Your task to perform on an android device: Go to location settings Image 0: 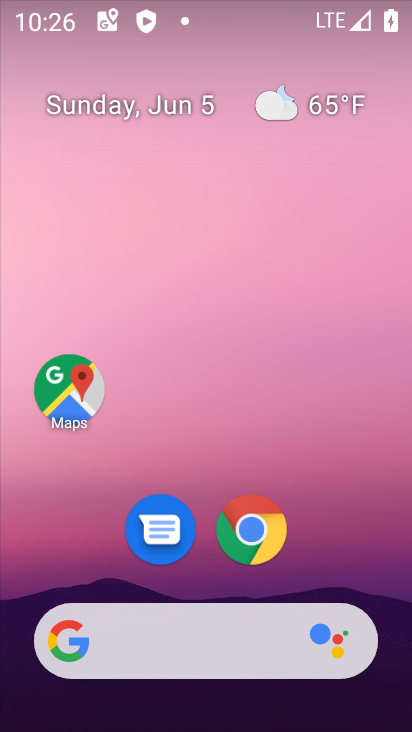
Step 0: drag from (143, 703) to (170, 18)
Your task to perform on an android device: Go to location settings Image 1: 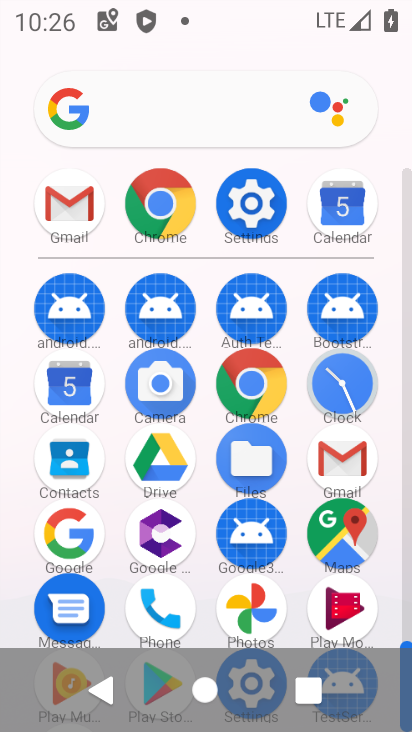
Step 1: click (254, 178)
Your task to perform on an android device: Go to location settings Image 2: 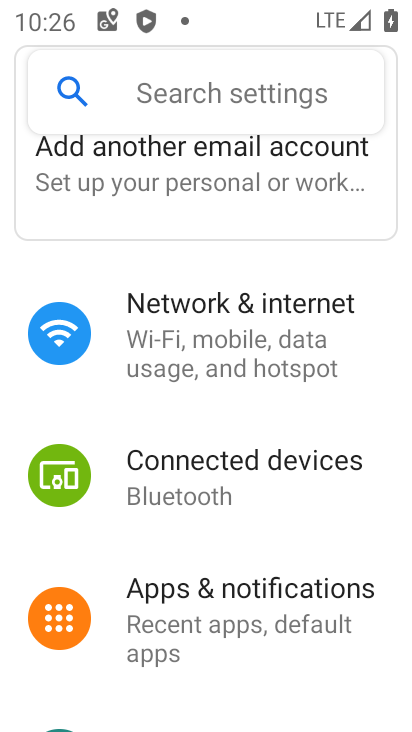
Step 2: drag from (284, 689) to (405, 26)
Your task to perform on an android device: Go to location settings Image 3: 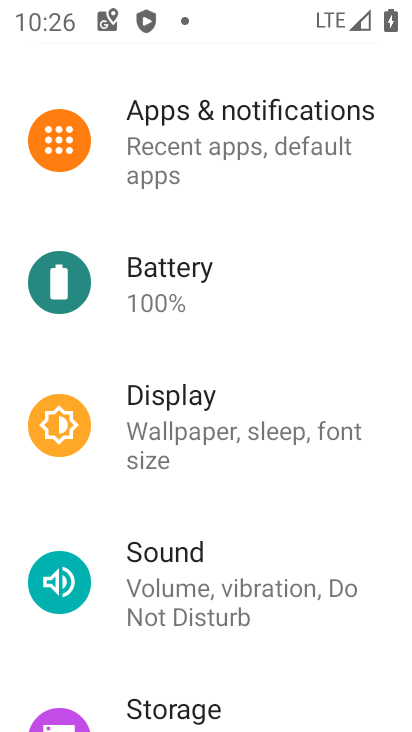
Step 3: drag from (268, 390) to (309, 39)
Your task to perform on an android device: Go to location settings Image 4: 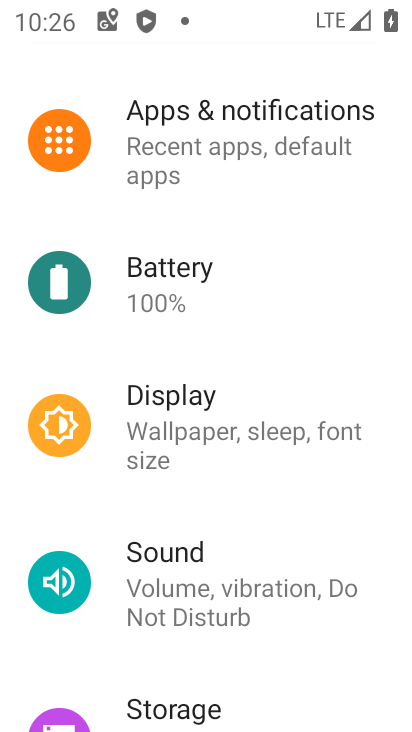
Step 4: drag from (295, 680) to (365, 14)
Your task to perform on an android device: Go to location settings Image 5: 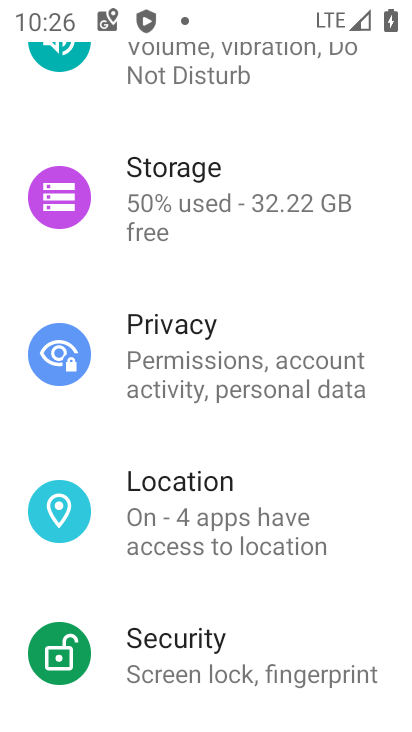
Step 5: click (260, 523)
Your task to perform on an android device: Go to location settings Image 6: 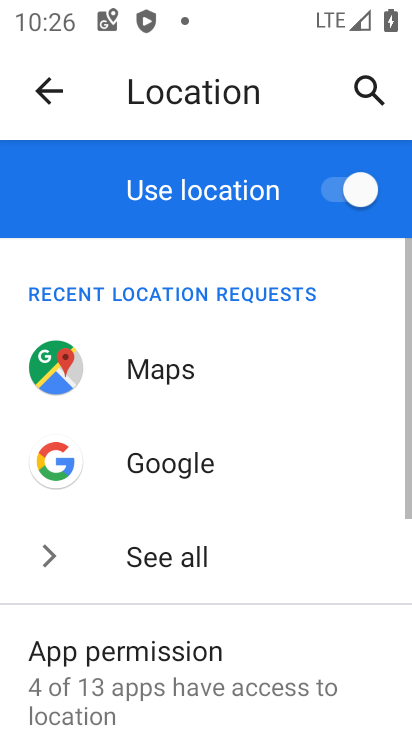
Step 6: task complete